Your task to perform on an android device: Go to eBay Image 0: 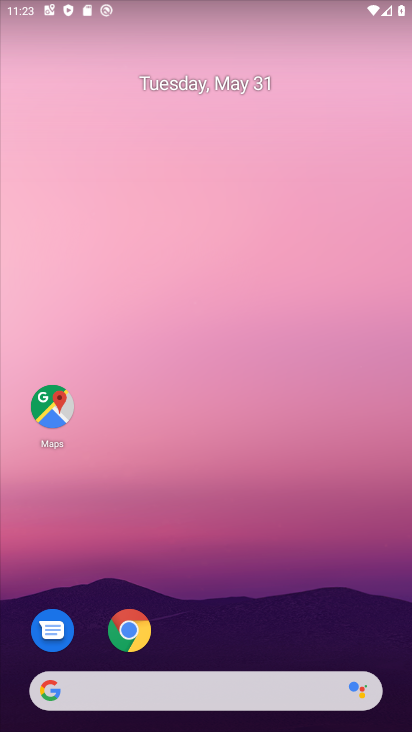
Step 0: click (128, 646)
Your task to perform on an android device: Go to eBay Image 1: 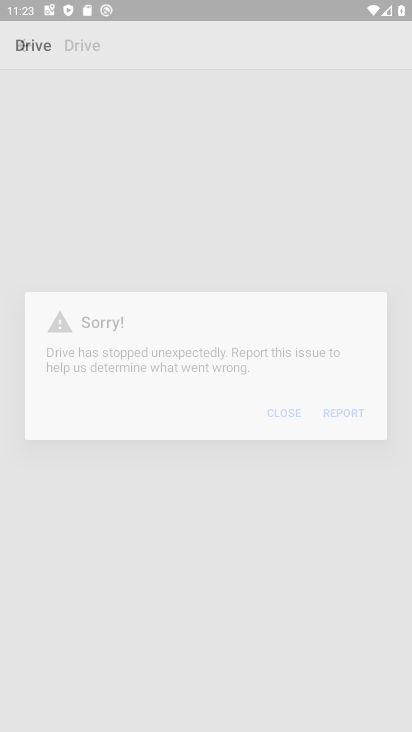
Step 1: press home button
Your task to perform on an android device: Go to eBay Image 2: 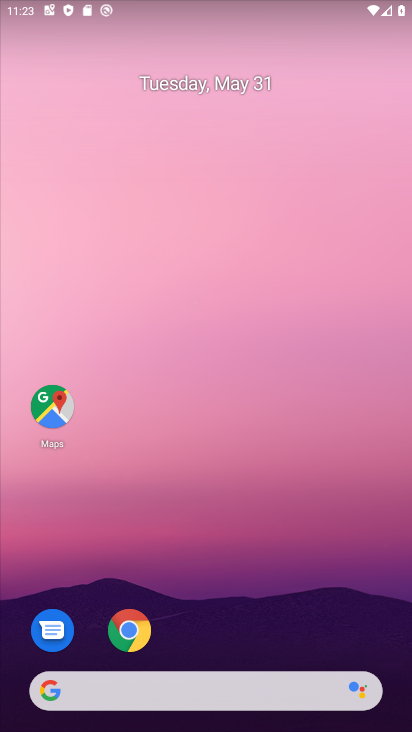
Step 2: click (134, 644)
Your task to perform on an android device: Go to eBay Image 3: 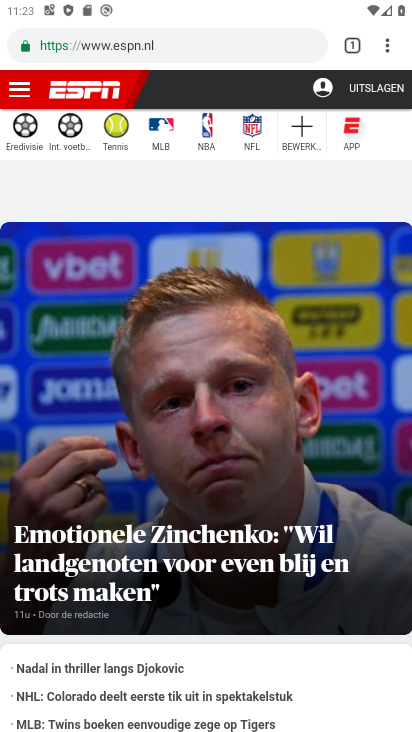
Step 3: click (348, 49)
Your task to perform on an android device: Go to eBay Image 4: 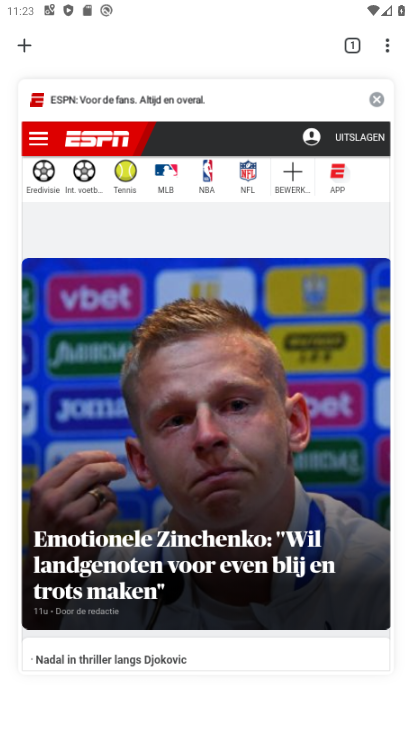
Step 4: click (380, 99)
Your task to perform on an android device: Go to eBay Image 5: 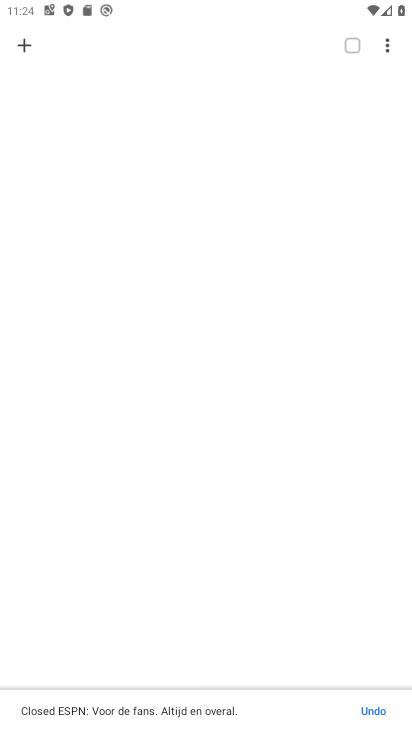
Step 5: click (22, 49)
Your task to perform on an android device: Go to eBay Image 6: 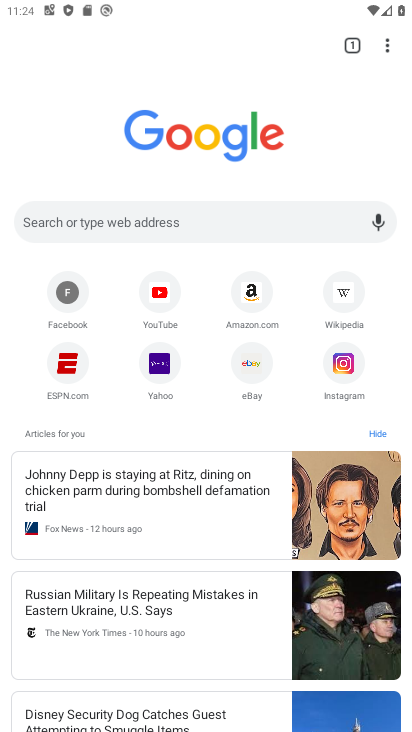
Step 6: click (251, 360)
Your task to perform on an android device: Go to eBay Image 7: 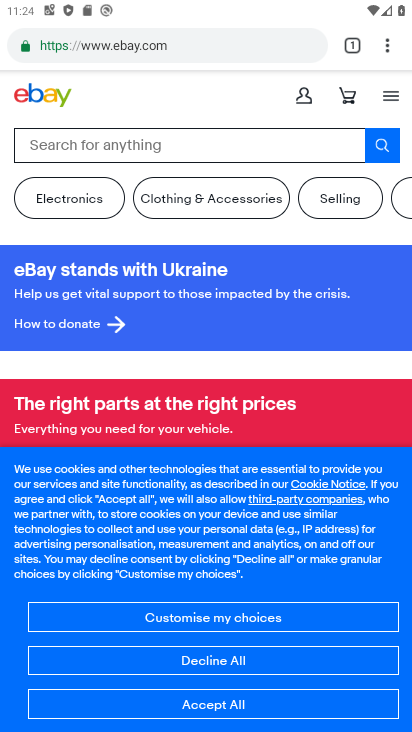
Step 7: click (207, 712)
Your task to perform on an android device: Go to eBay Image 8: 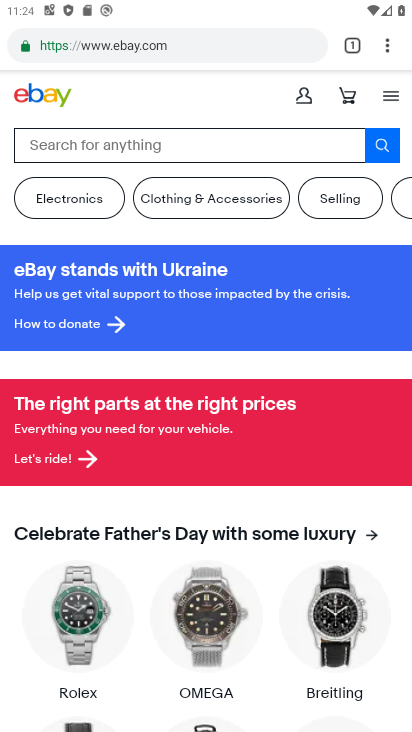
Step 8: task complete